Your task to perform on an android device: What's on my calendar tomorrow? Image 0: 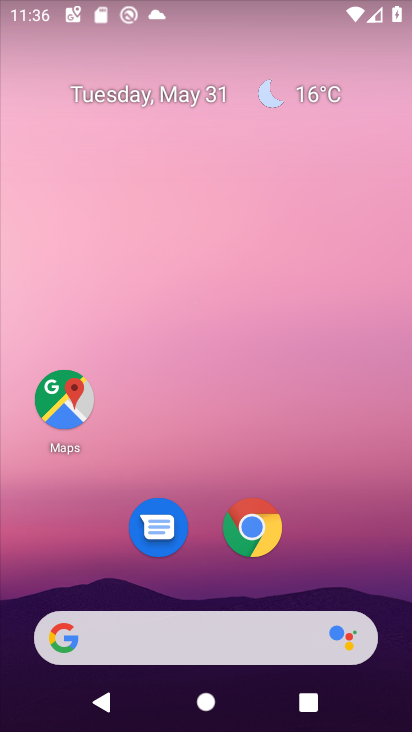
Step 0: drag from (362, 589) to (358, 30)
Your task to perform on an android device: What's on my calendar tomorrow? Image 1: 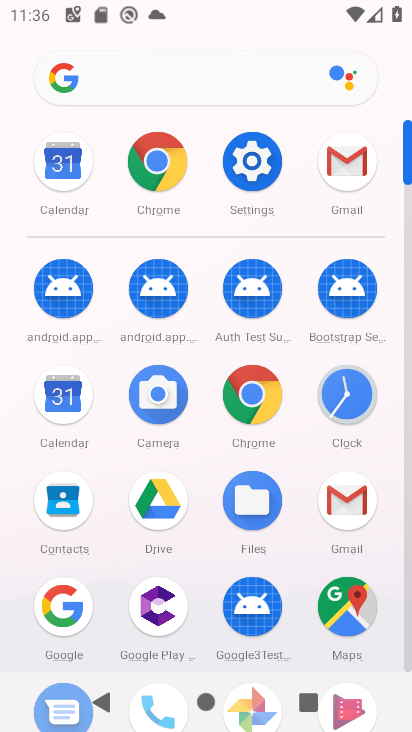
Step 1: click (49, 157)
Your task to perform on an android device: What's on my calendar tomorrow? Image 2: 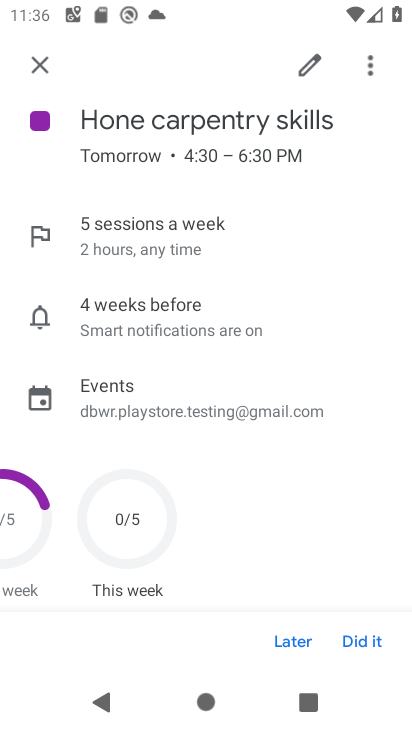
Step 2: click (27, 67)
Your task to perform on an android device: What's on my calendar tomorrow? Image 3: 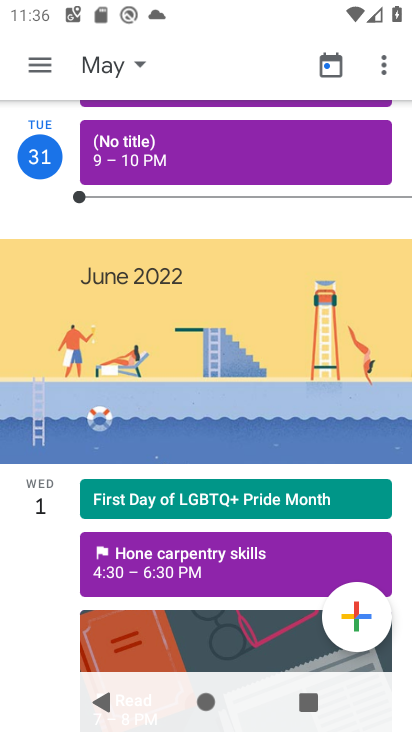
Step 3: click (133, 61)
Your task to perform on an android device: What's on my calendar tomorrow? Image 4: 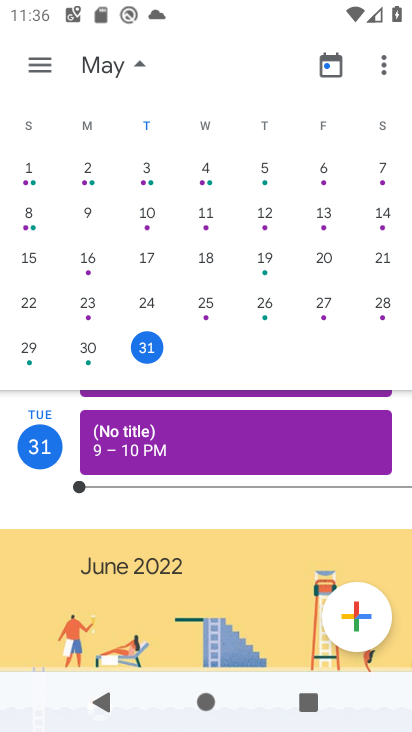
Step 4: drag from (364, 242) to (13, 315)
Your task to perform on an android device: What's on my calendar tomorrow? Image 5: 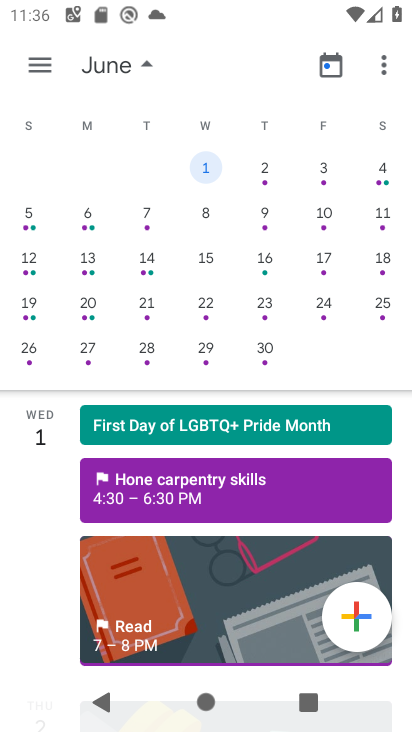
Step 5: click (215, 169)
Your task to perform on an android device: What's on my calendar tomorrow? Image 6: 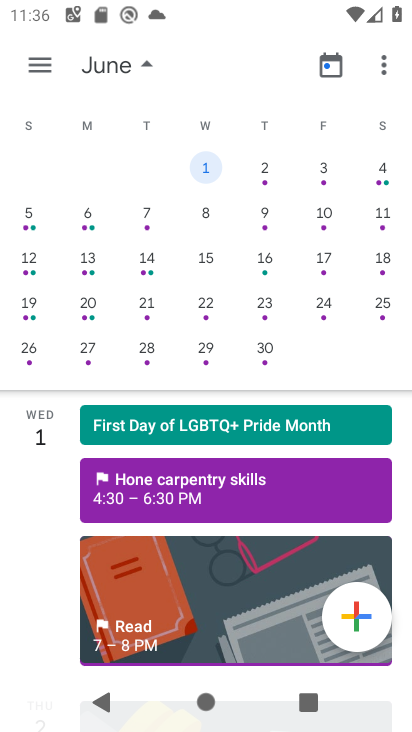
Step 6: click (24, 66)
Your task to perform on an android device: What's on my calendar tomorrow? Image 7: 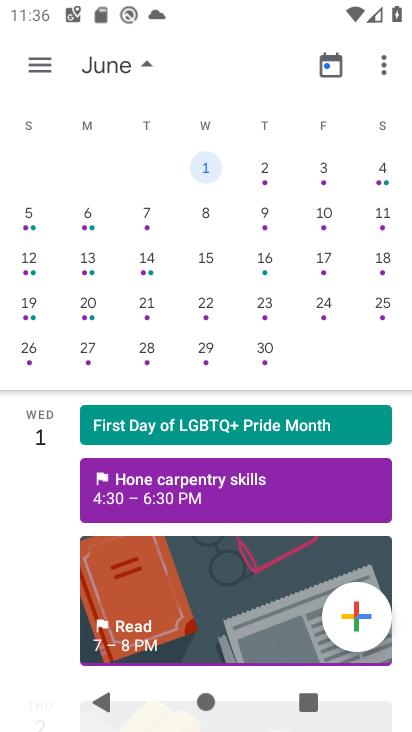
Step 7: click (36, 63)
Your task to perform on an android device: What's on my calendar tomorrow? Image 8: 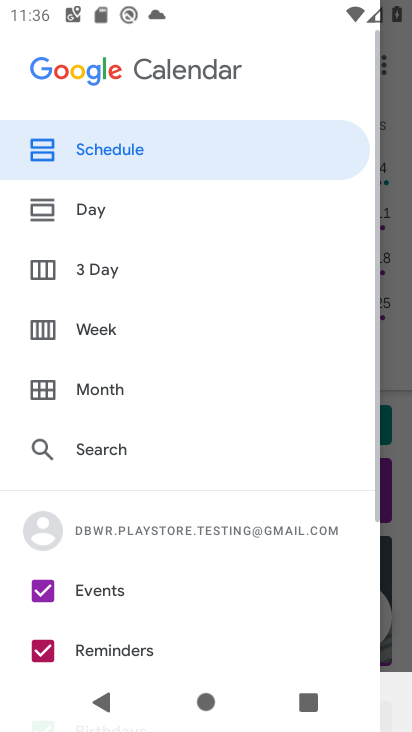
Step 8: click (70, 204)
Your task to perform on an android device: What's on my calendar tomorrow? Image 9: 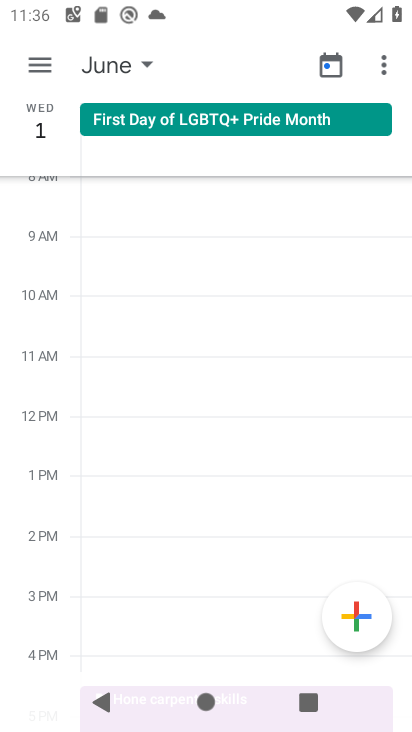
Step 9: task complete